Your task to perform on an android device: open app "PlayWell" (install if not already installed) Image 0: 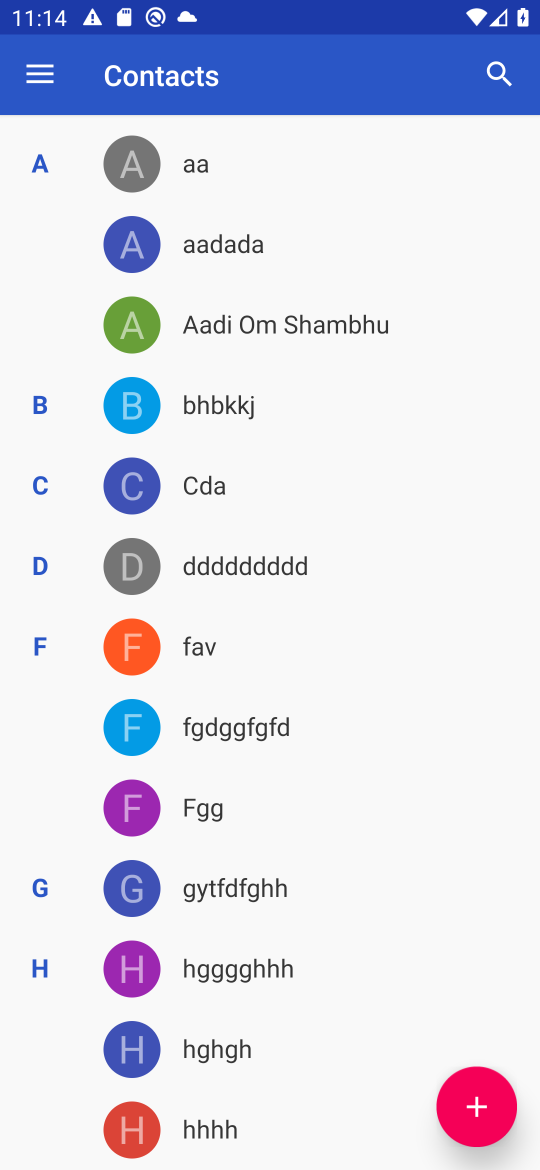
Step 0: press home button
Your task to perform on an android device: open app "PlayWell" (install if not already installed) Image 1: 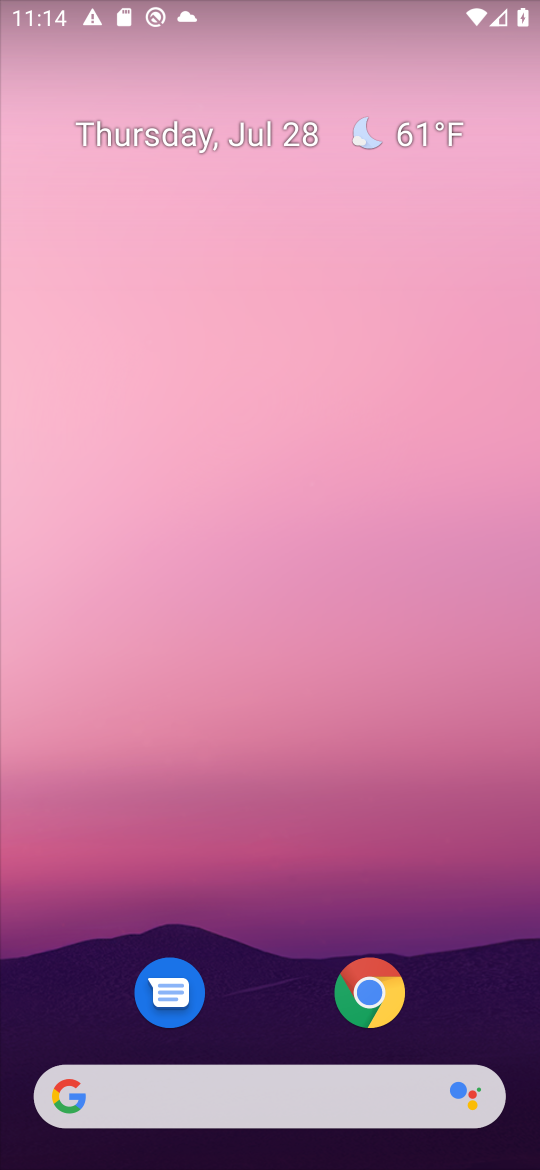
Step 1: click (294, 34)
Your task to perform on an android device: open app "PlayWell" (install if not already installed) Image 2: 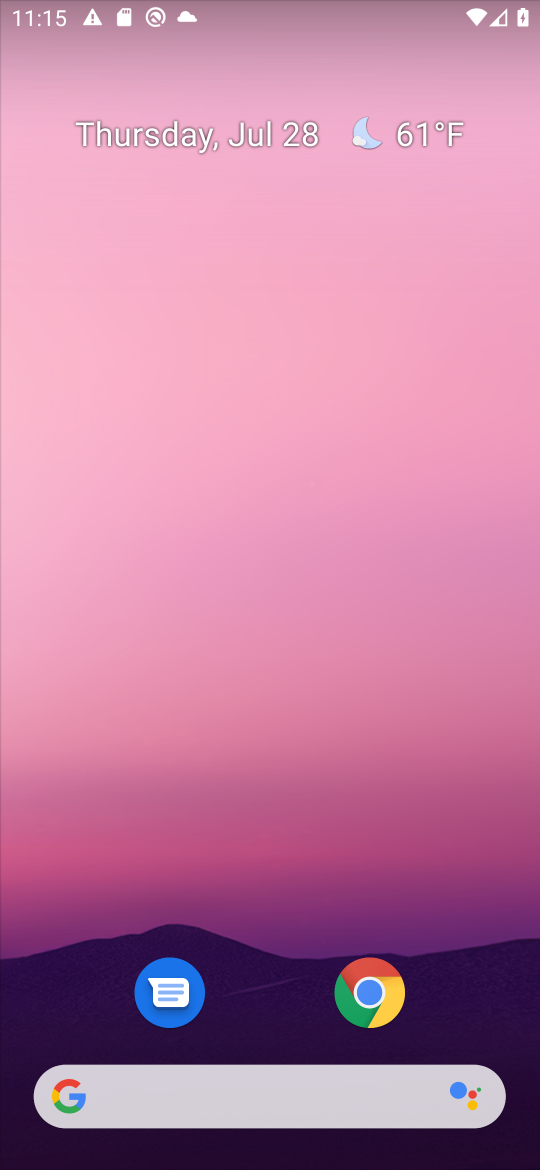
Step 2: drag from (258, 1093) to (404, 96)
Your task to perform on an android device: open app "PlayWell" (install if not already installed) Image 3: 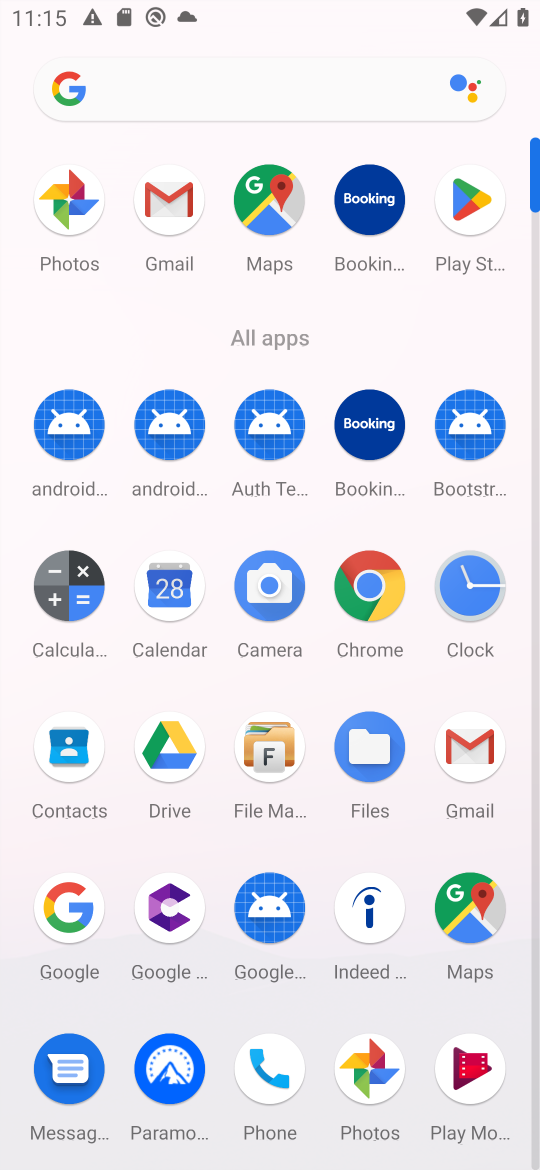
Step 3: click (475, 206)
Your task to perform on an android device: open app "PlayWell" (install if not already installed) Image 4: 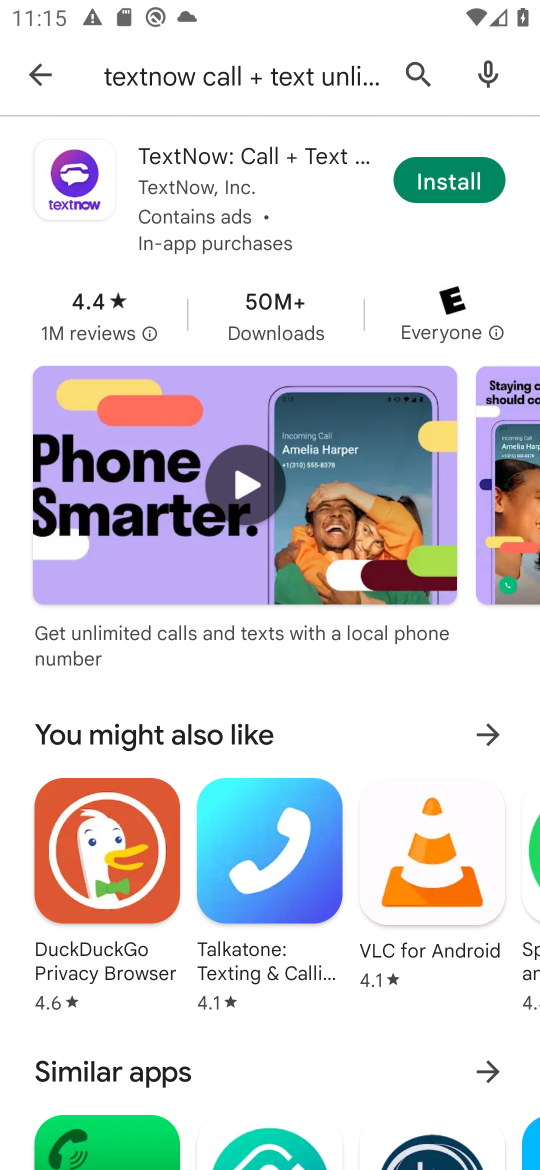
Step 4: click (421, 76)
Your task to perform on an android device: open app "PlayWell" (install if not already installed) Image 5: 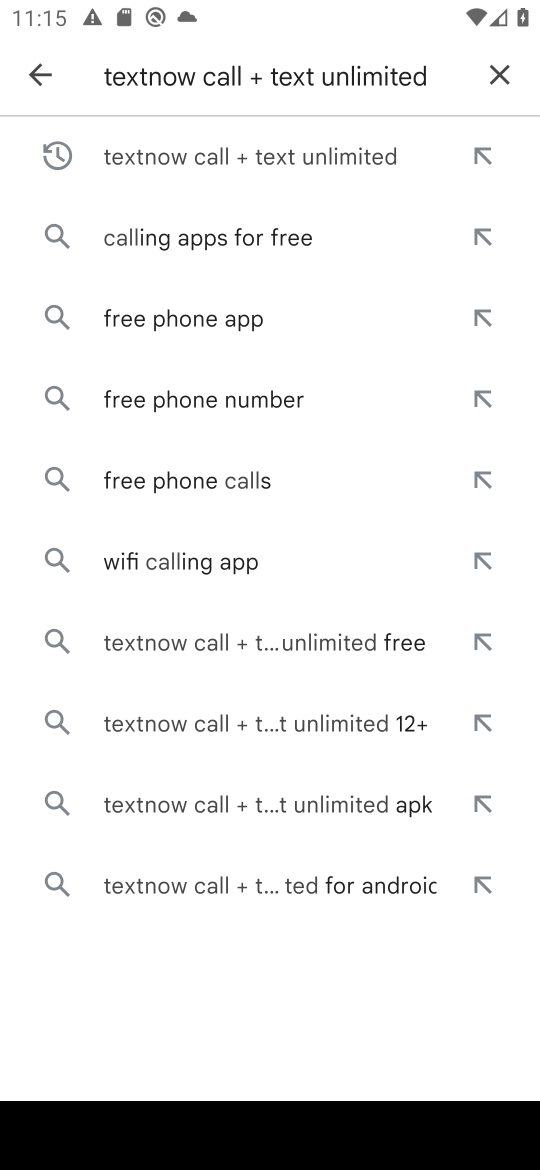
Step 5: click (498, 73)
Your task to perform on an android device: open app "PlayWell" (install if not already installed) Image 6: 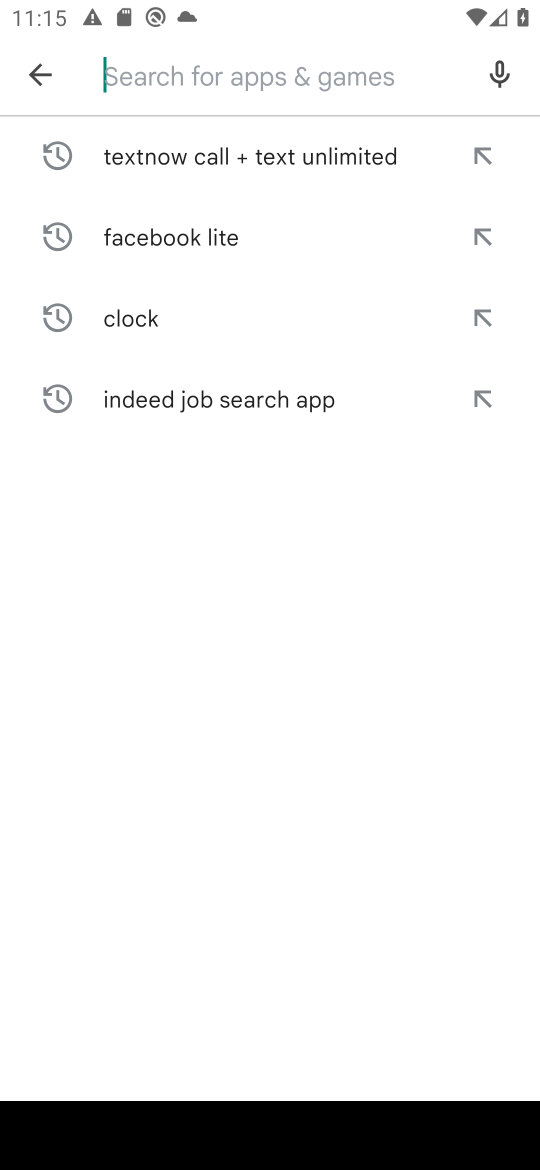
Step 6: type "PlayWell"
Your task to perform on an android device: open app "PlayWell" (install if not already installed) Image 7: 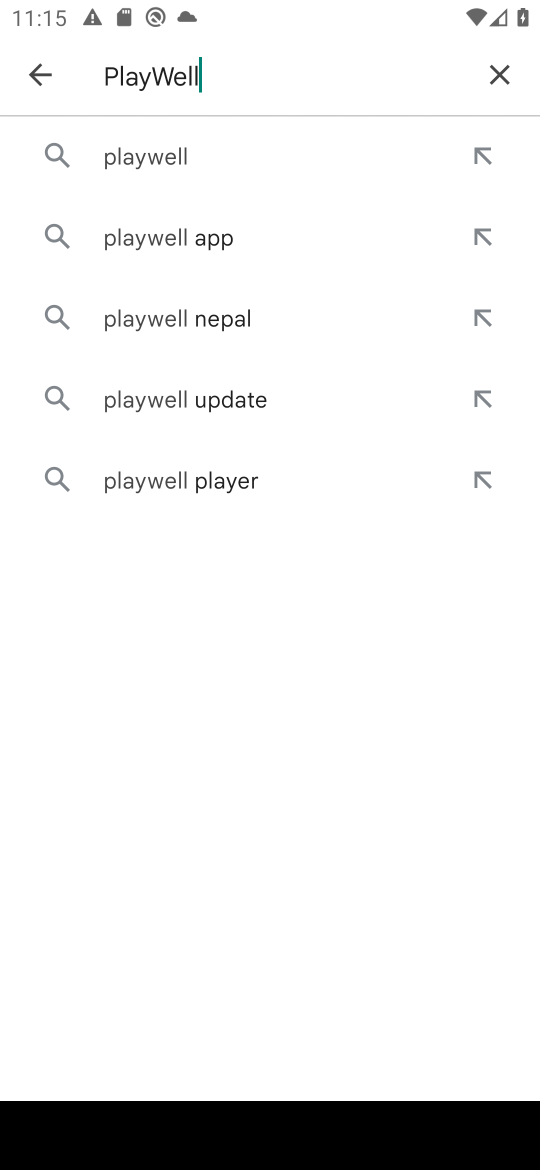
Step 7: click (155, 156)
Your task to perform on an android device: open app "PlayWell" (install if not already installed) Image 8: 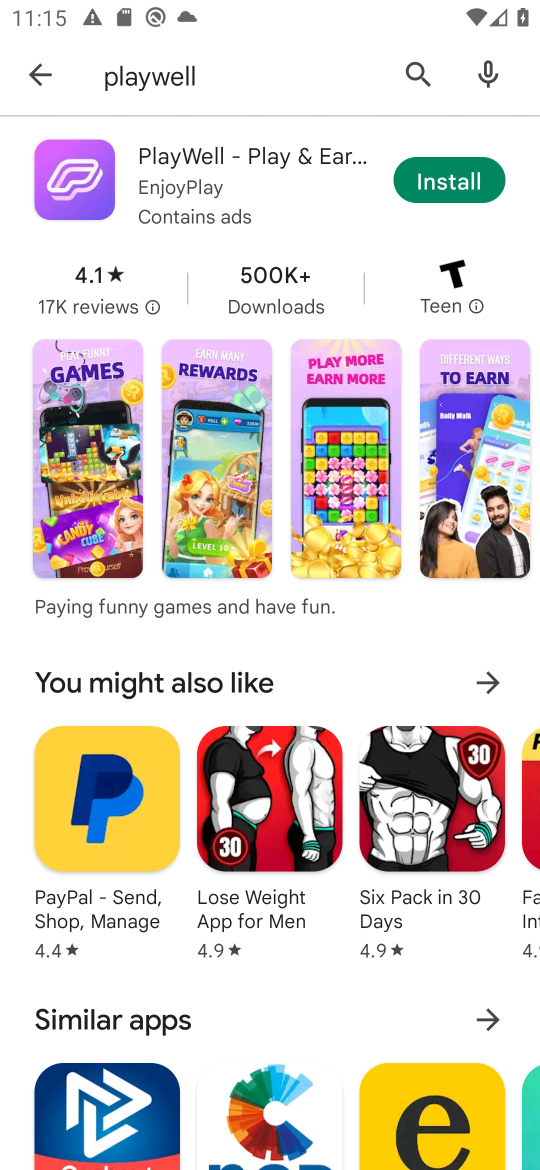
Step 8: click (448, 177)
Your task to perform on an android device: open app "PlayWell" (install if not already installed) Image 9: 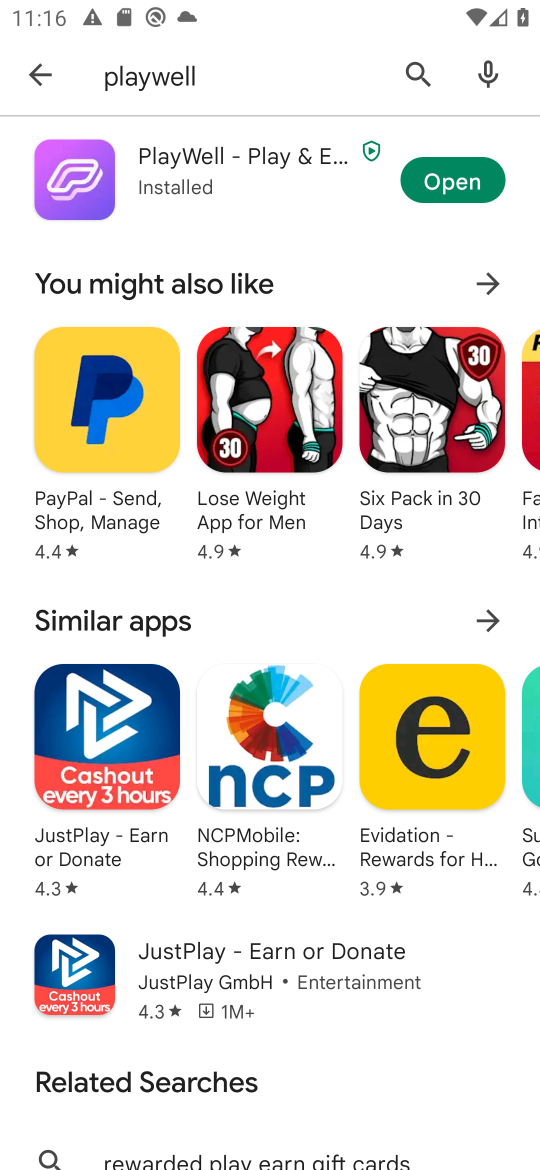
Step 9: click (444, 176)
Your task to perform on an android device: open app "PlayWell" (install if not already installed) Image 10: 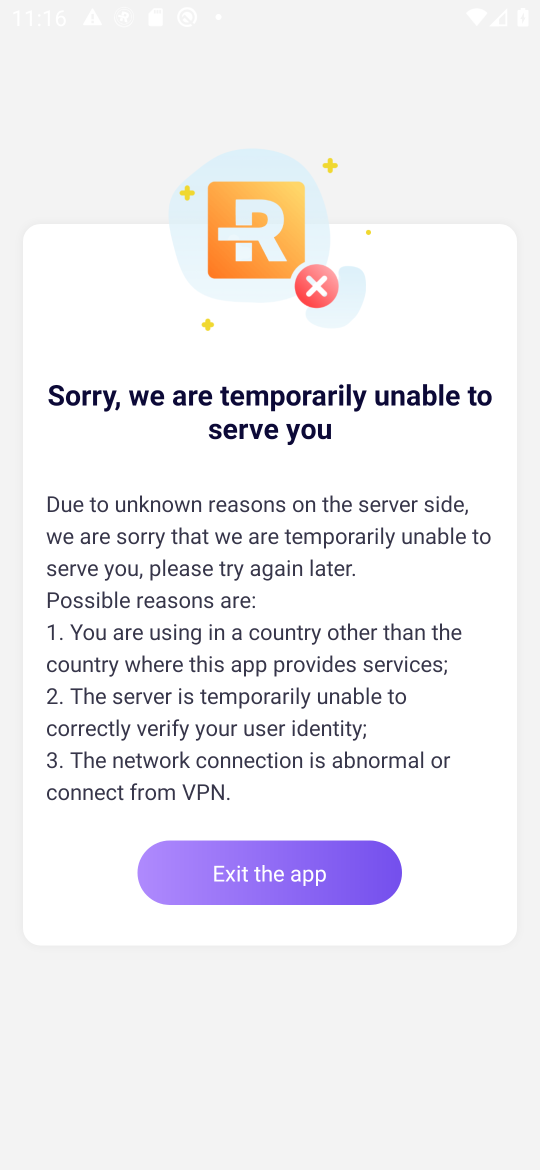
Step 10: task complete